Your task to perform on an android device: Open wifi settings Image 0: 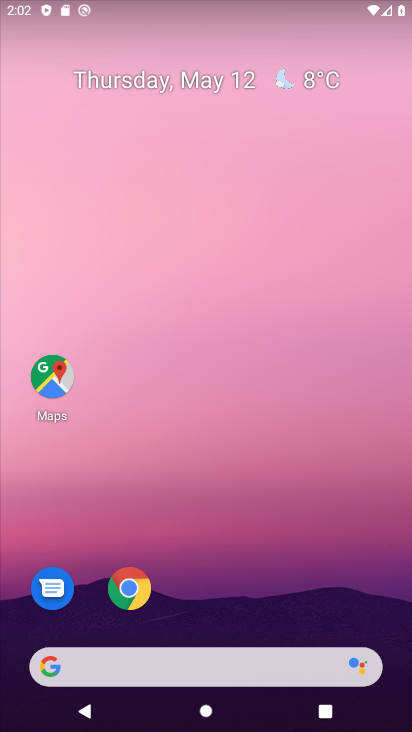
Step 0: click (140, 584)
Your task to perform on an android device: Open wifi settings Image 1: 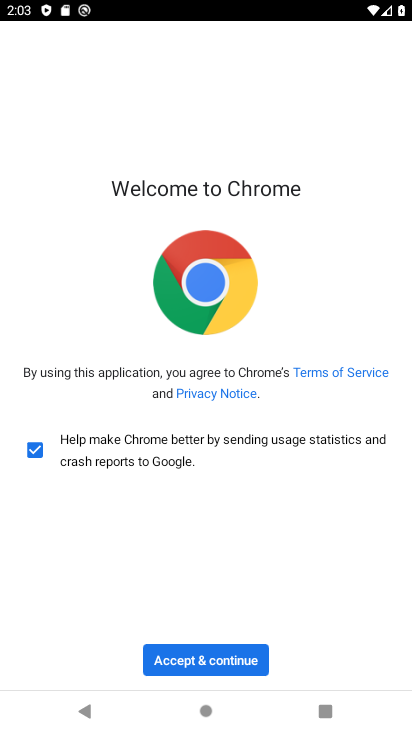
Step 1: press home button
Your task to perform on an android device: Open wifi settings Image 2: 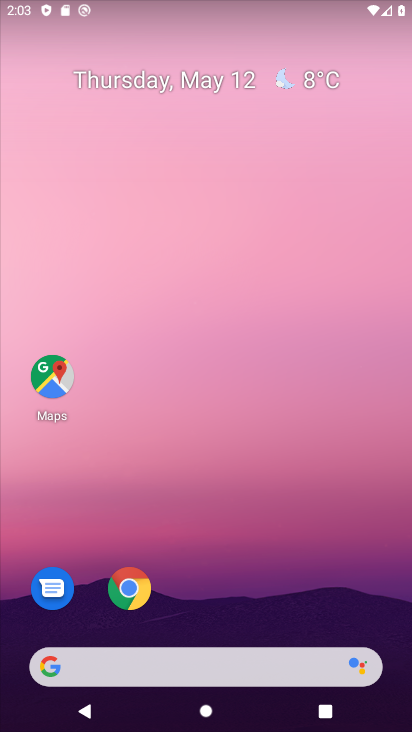
Step 2: drag from (248, 588) to (218, 25)
Your task to perform on an android device: Open wifi settings Image 3: 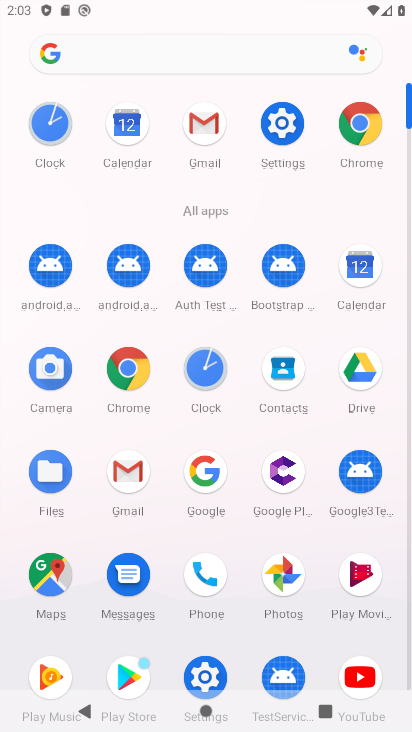
Step 3: click (275, 154)
Your task to perform on an android device: Open wifi settings Image 4: 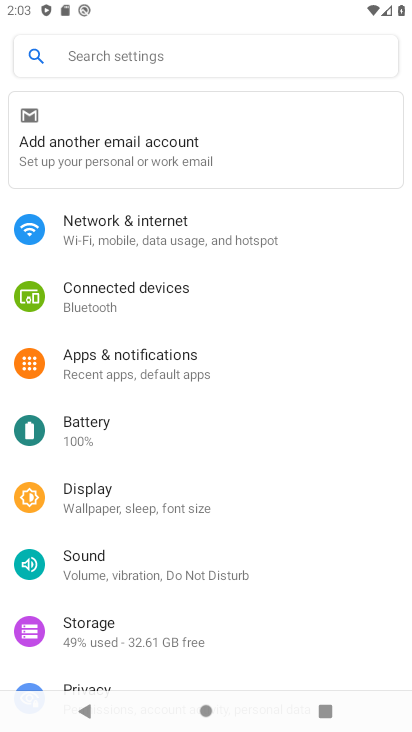
Step 4: click (255, 223)
Your task to perform on an android device: Open wifi settings Image 5: 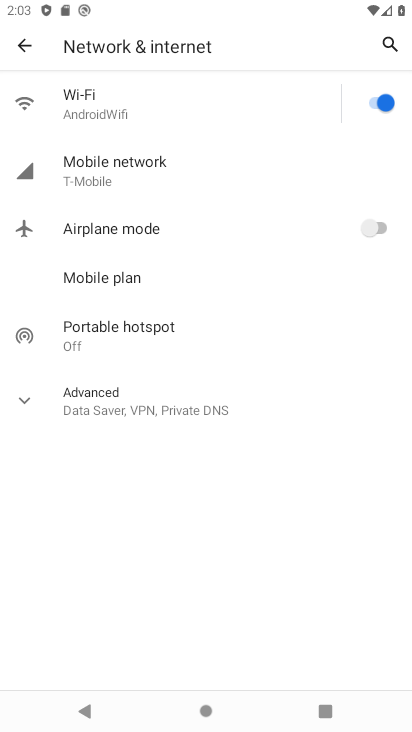
Step 5: task complete